Your task to perform on an android device: turn on showing notifications on the lock screen Image 0: 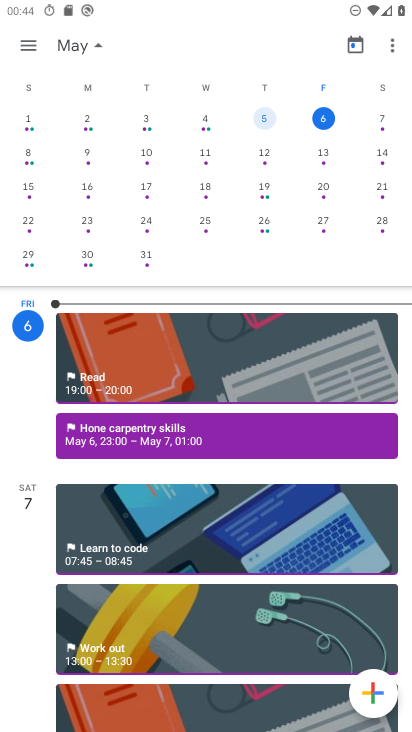
Step 0: press home button
Your task to perform on an android device: turn on showing notifications on the lock screen Image 1: 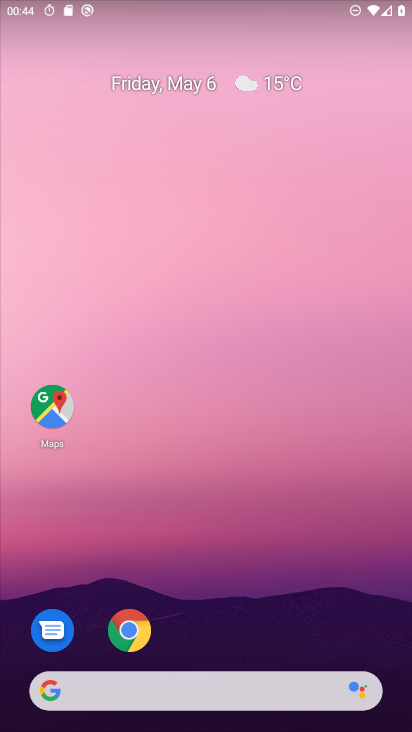
Step 1: drag from (276, 577) to (182, 65)
Your task to perform on an android device: turn on showing notifications on the lock screen Image 2: 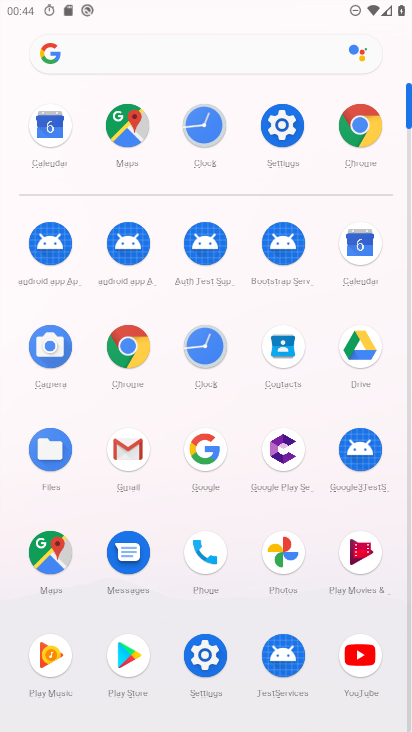
Step 2: click (278, 114)
Your task to perform on an android device: turn on showing notifications on the lock screen Image 3: 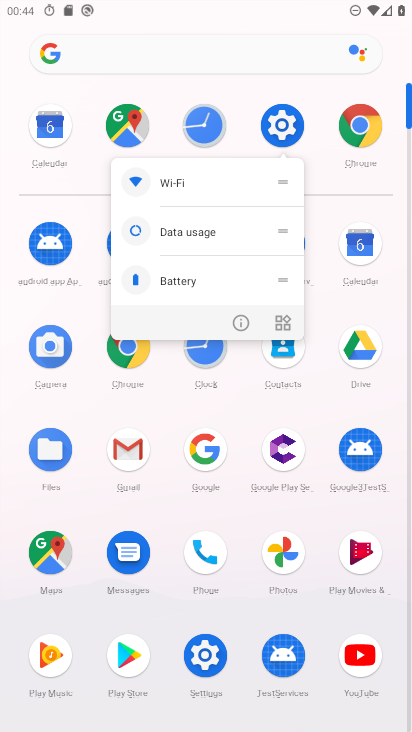
Step 3: click (278, 114)
Your task to perform on an android device: turn on showing notifications on the lock screen Image 4: 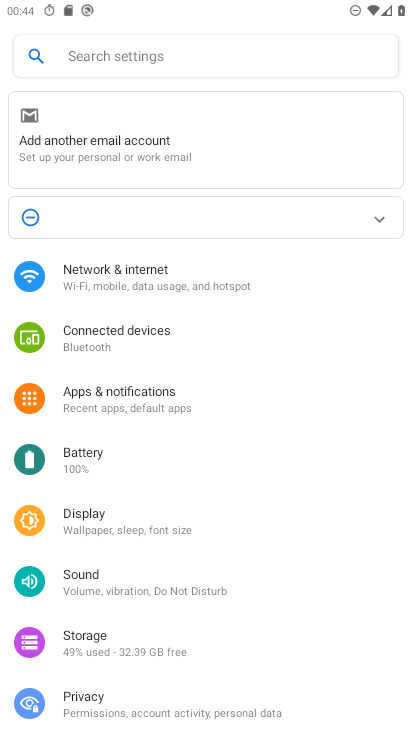
Step 4: click (153, 398)
Your task to perform on an android device: turn on showing notifications on the lock screen Image 5: 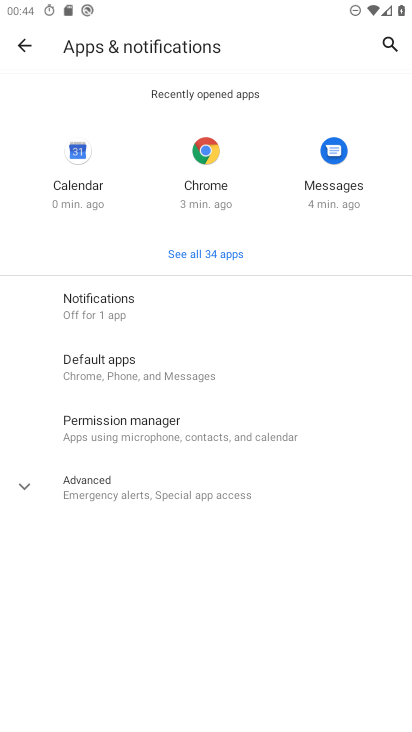
Step 5: click (146, 304)
Your task to perform on an android device: turn on showing notifications on the lock screen Image 6: 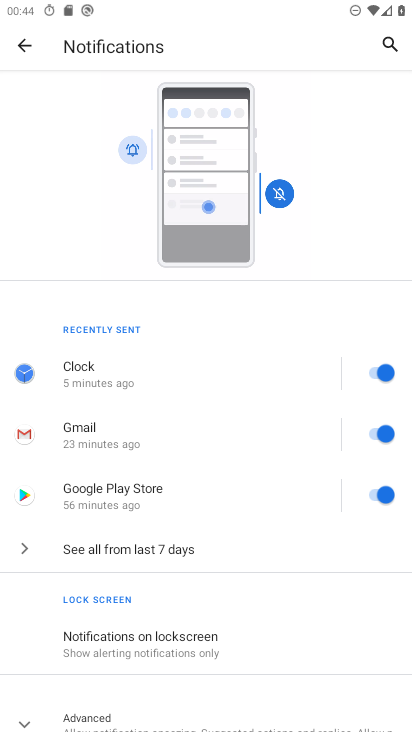
Step 6: click (193, 641)
Your task to perform on an android device: turn on showing notifications on the lock screen Image 7: 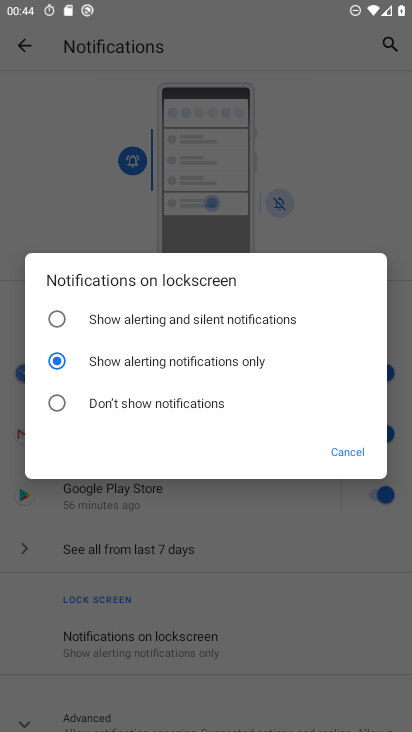
Step 7: task complete